Your task to perform on an android device: Search for Italian restaurants on Maps Image 0: 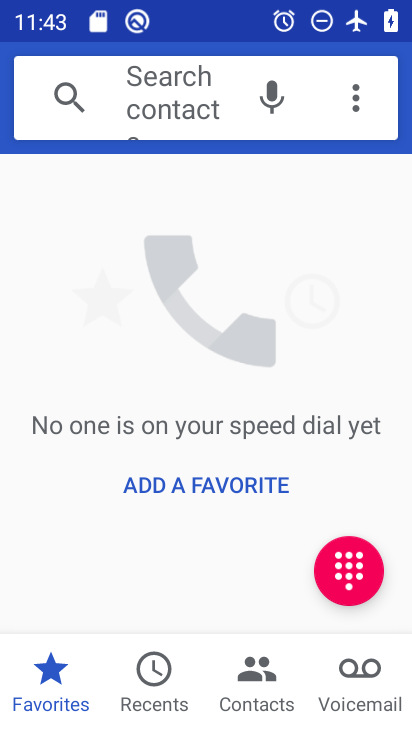
Step 0: press home button
Your task to perform on an android device: Search for Italian restaurants on Maps Image 1: 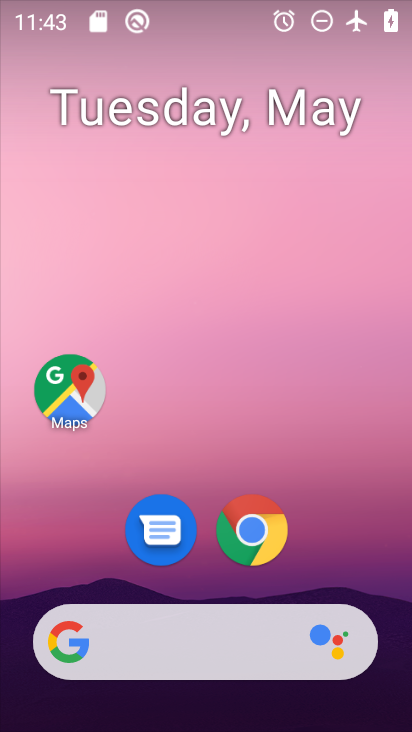
Step 1: drag from (321, 379) to (333, 26)
Your task to perform on an android device: Search for Italian restaurants on Maps Image 2: 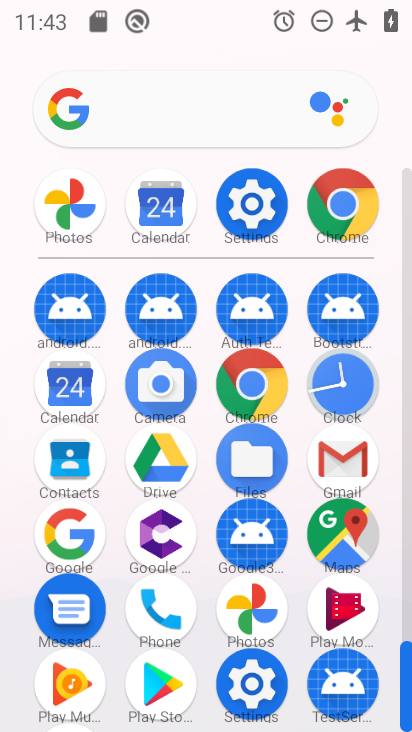
Step 2: click (339, 527)
Your task to perform on an android device: Search for Italian restaurants on Maps Image 3: 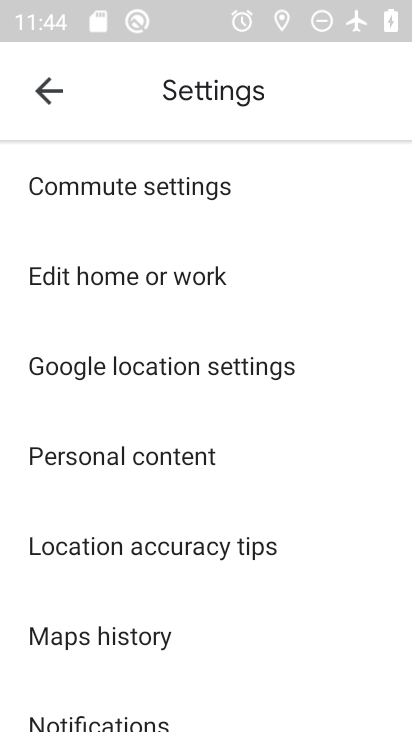
Step 3: click (38, 116)
Your task to perform on an android device: Search for Italian restaurants on Maps Image 4: 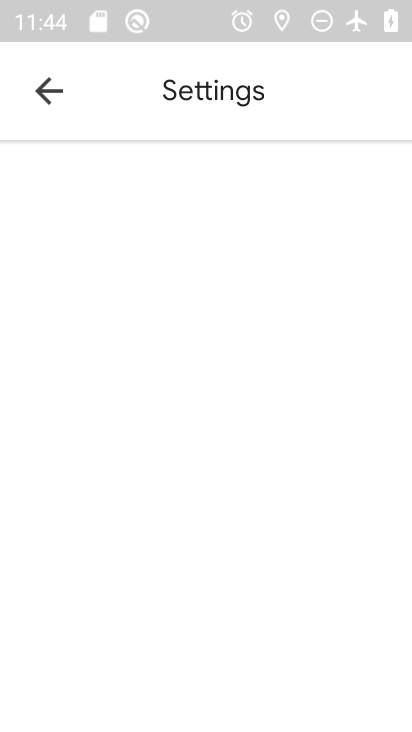
Step 4: click (43, 115)
Your task to perform on an android device: Search for Italian restaurants on Maps Image 5: 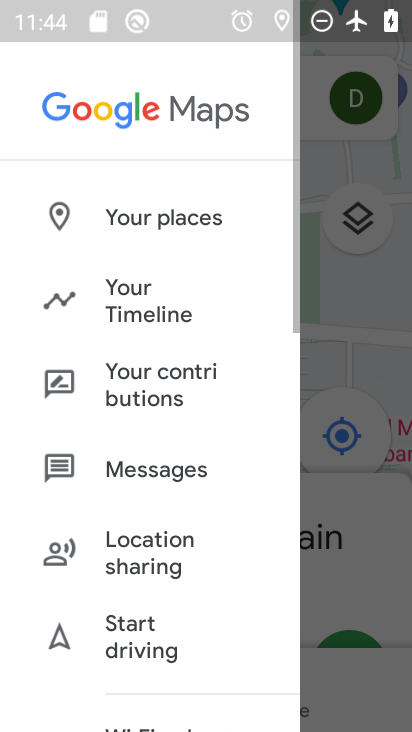
Step 5: click (174, 104)
Your task to perform on an android device: Search for Italian restaurants on Maps Image 6: 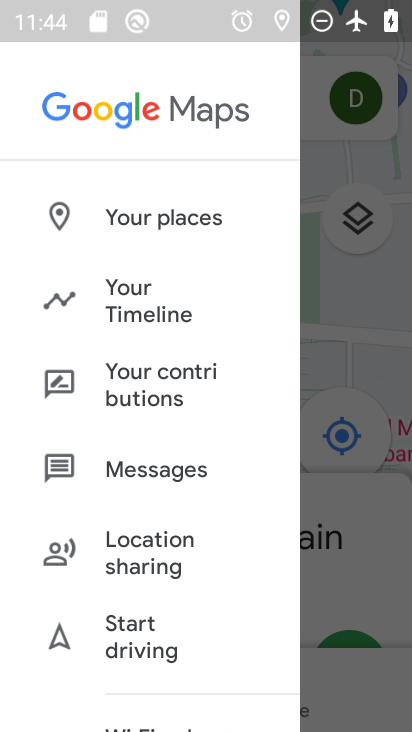
Step 6: click (323, 166)
Your task to perform on an android device: Search for Italian restaurants on Maps Image 7: 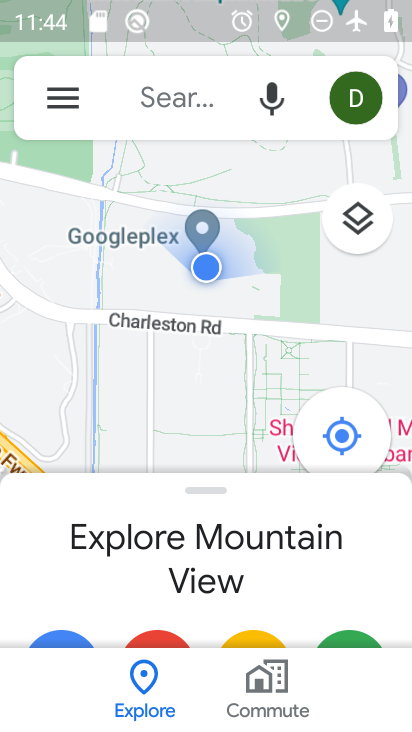
Step 7: click (166, 101)
Your task to perform on an android device: Search for Italian restaurants on Maps Image 8: 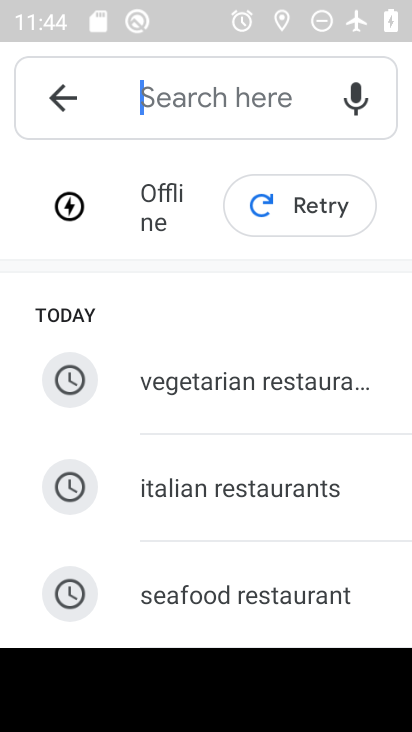
Step 8: click (314, 484)
Your task to perform on an android device: Search for Italian restaurants on Maps Image 9: 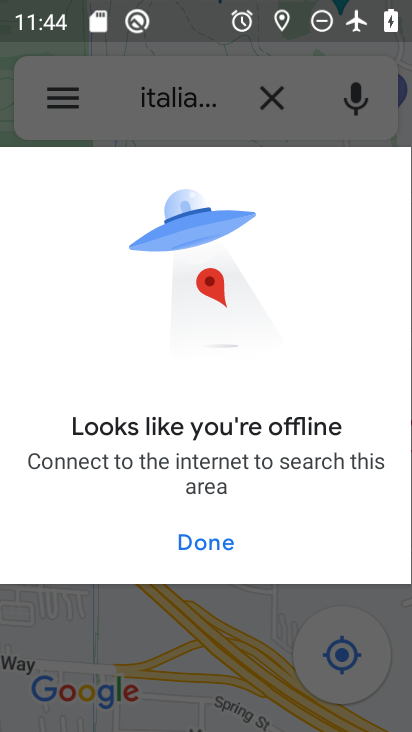
Step 9: task complete